Your task to perform on an android device: Add "jbl flip 4" to the cart on bestbuy, then select checkout. Image 0: 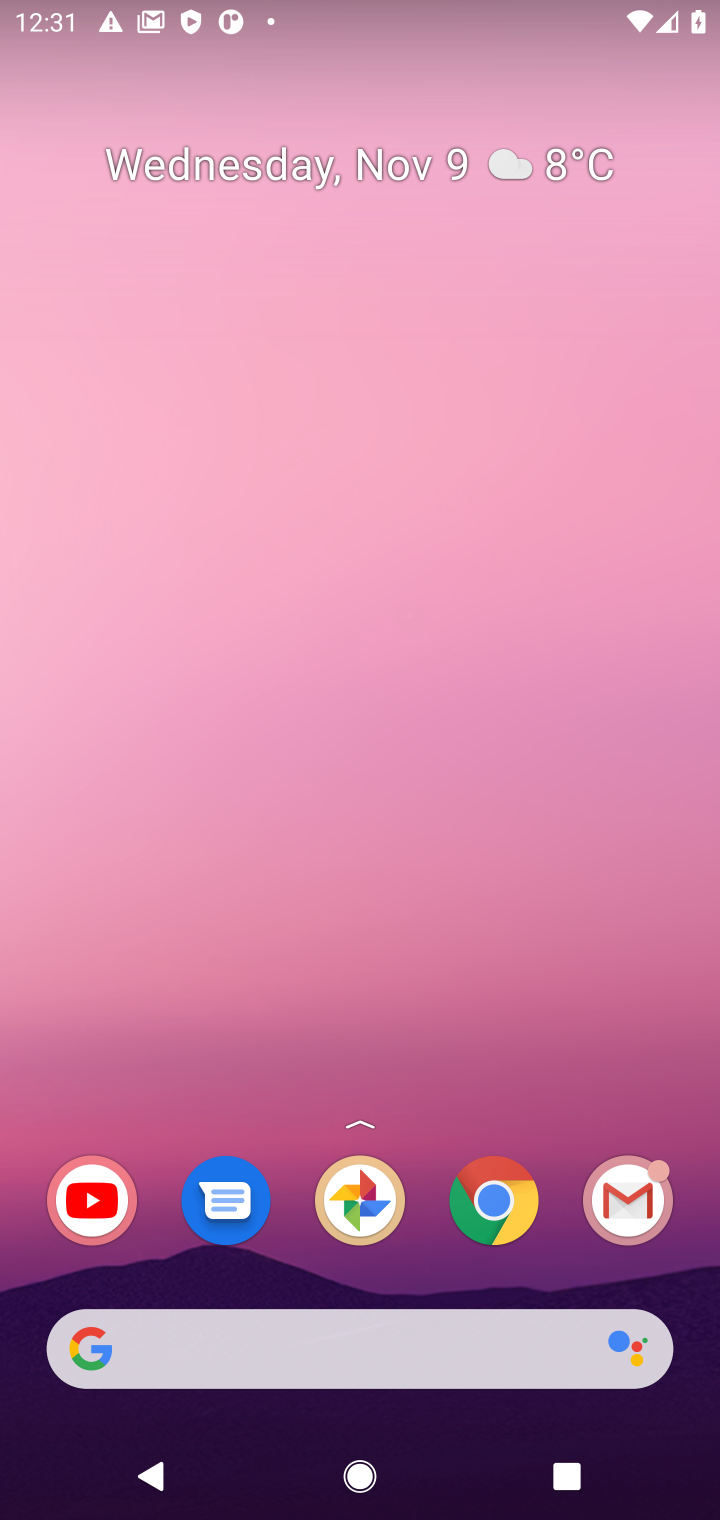
Step 0: click (275, 1363)
Your task to perform on an android device: Add "jbl flip 4" to the cart on bestbuy, then select checkout. Image 1: 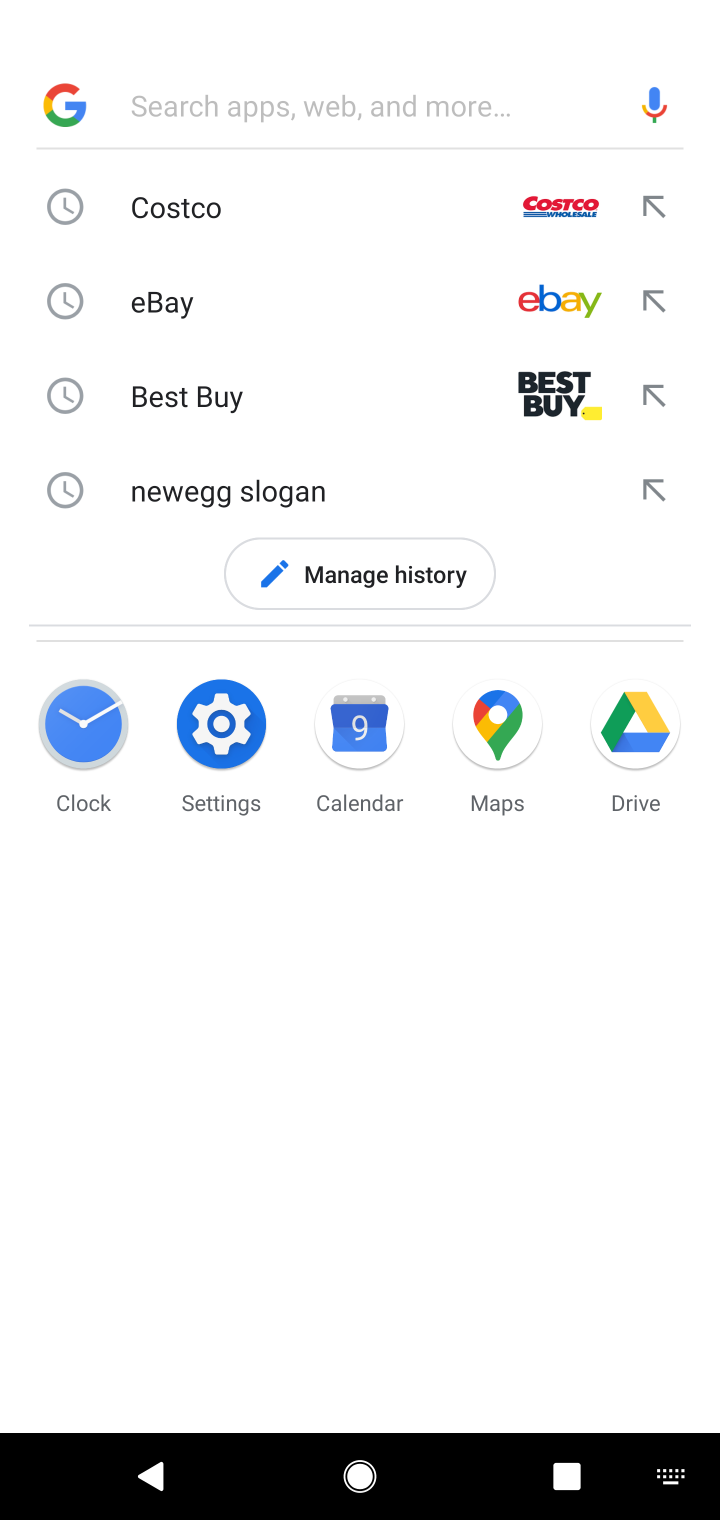
Step 1: type "best"
Your task to perform on an android device: Add "jbl flip 4" to the cart on bestbuy, then select checkout. Image 2: 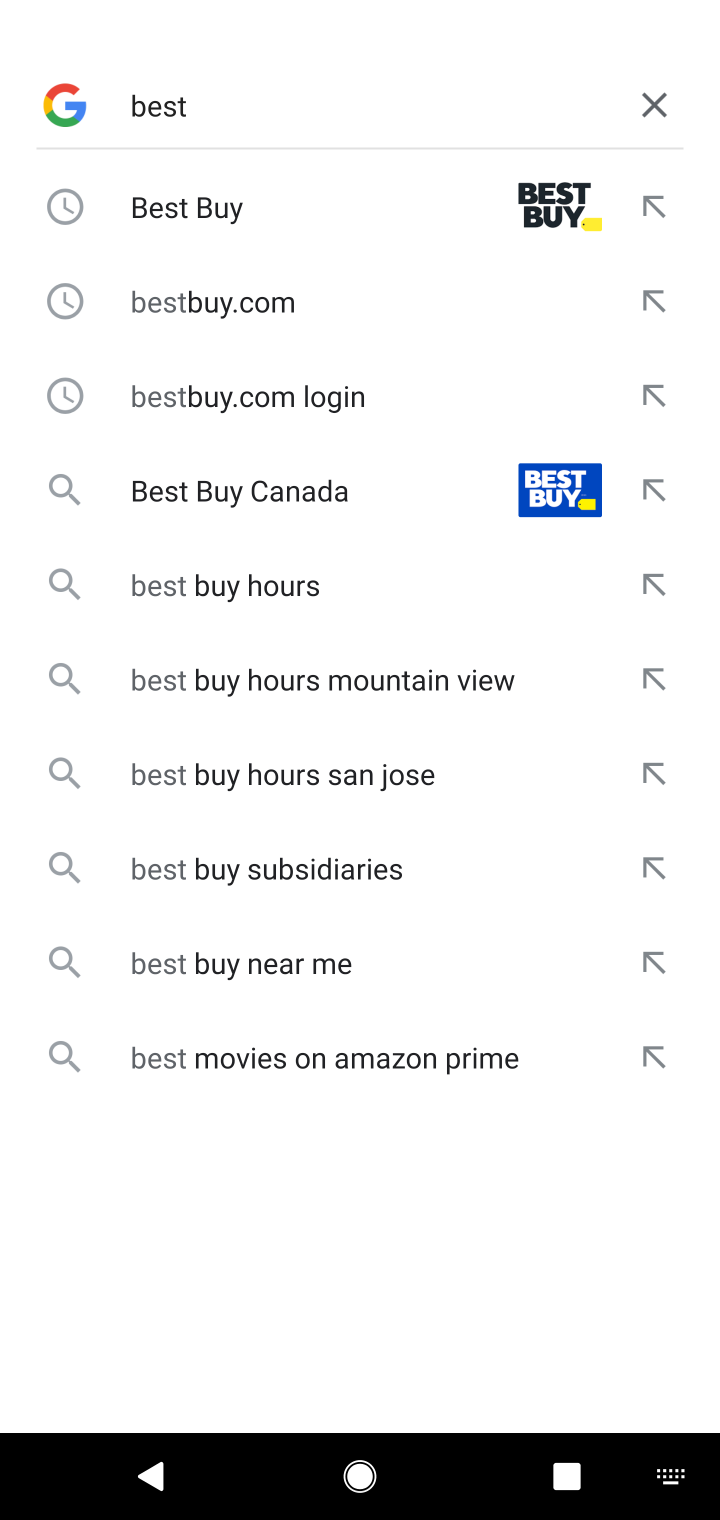
Step 2: click (439, 235)
Your task to perform on an android device: Add "jbl flip 4" to the cart on bestbuy, then select checkout. Image 3: 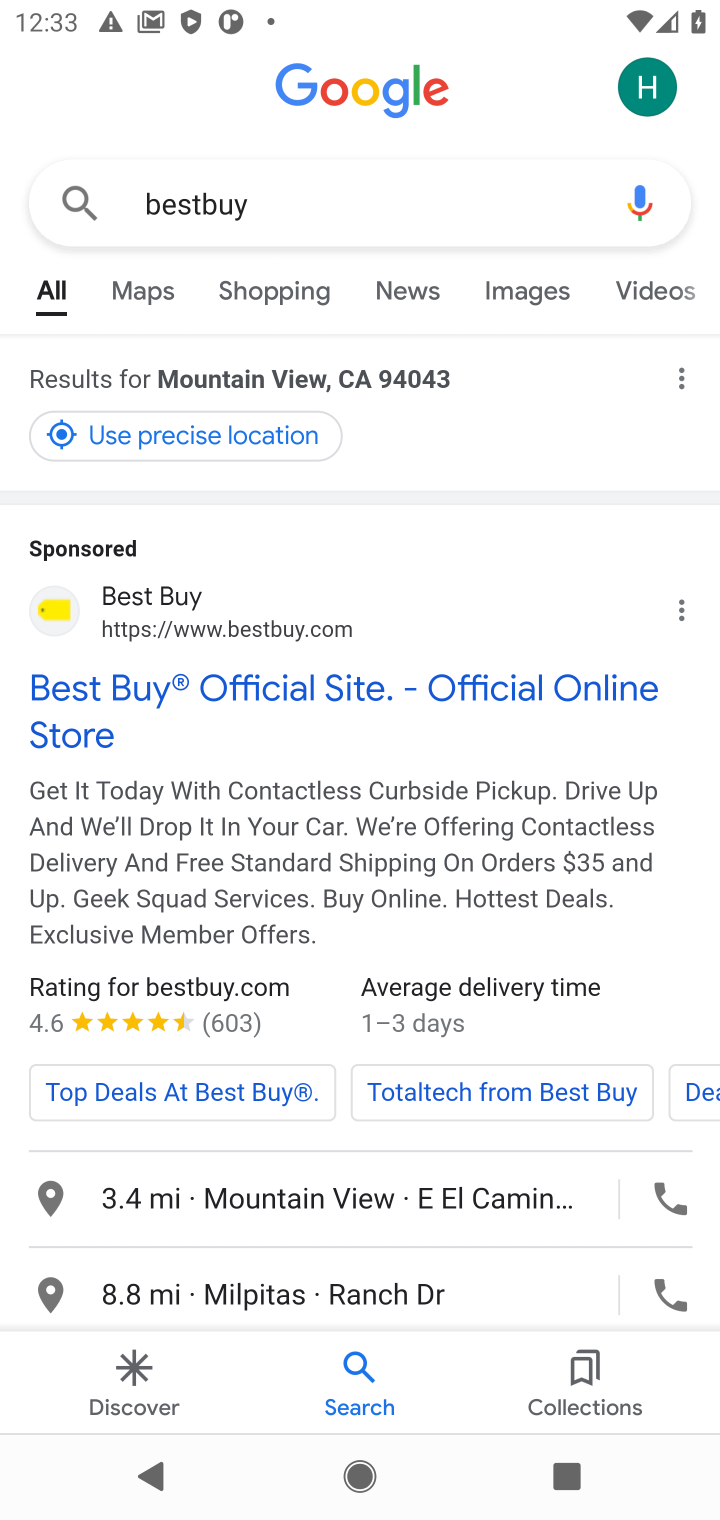
Step 3: click (336, 713)
Your task to perform on an android device: Add "jbl flip 4" to the cart on bestbuy, then select checkout. Image 4: 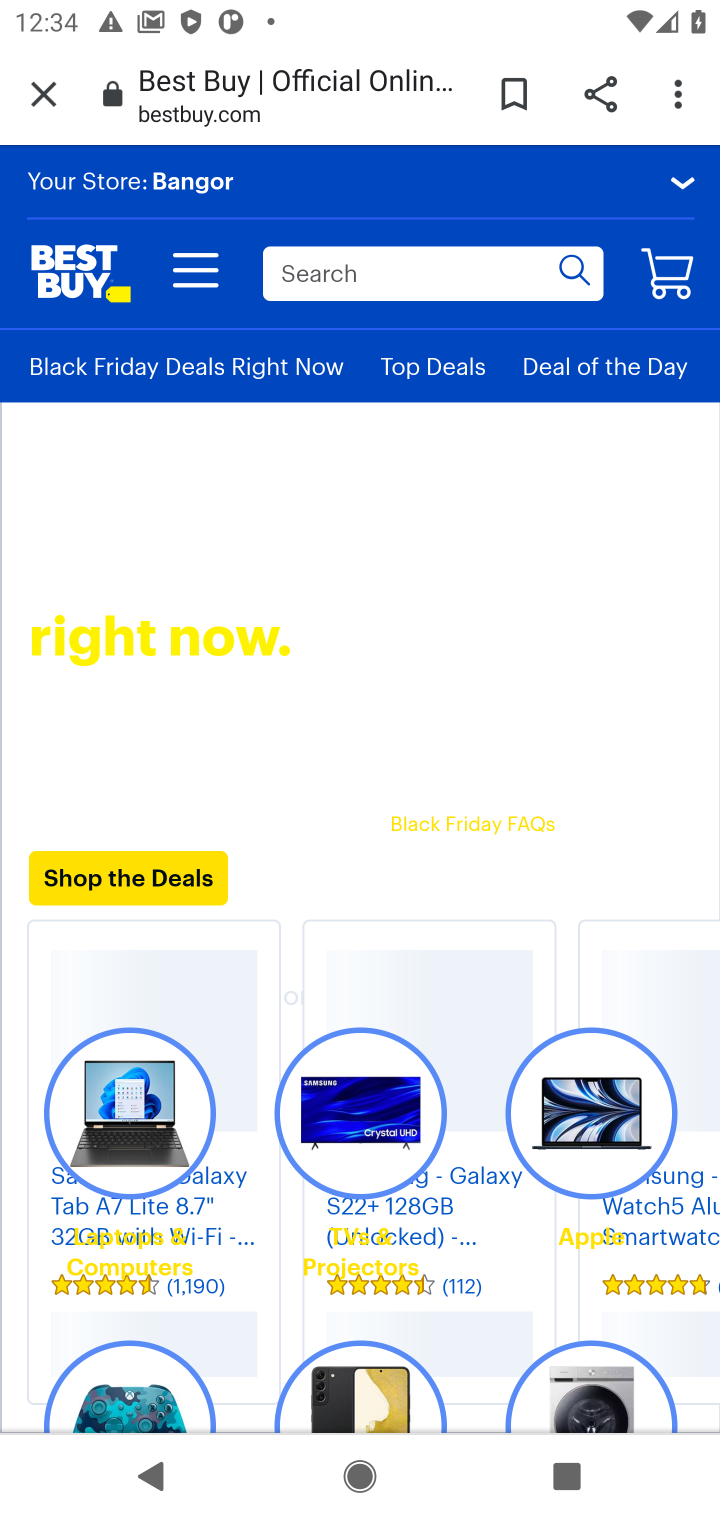
Step 4: task complete